Your task to perform on an android device: Is it going to rain today? Image 0: 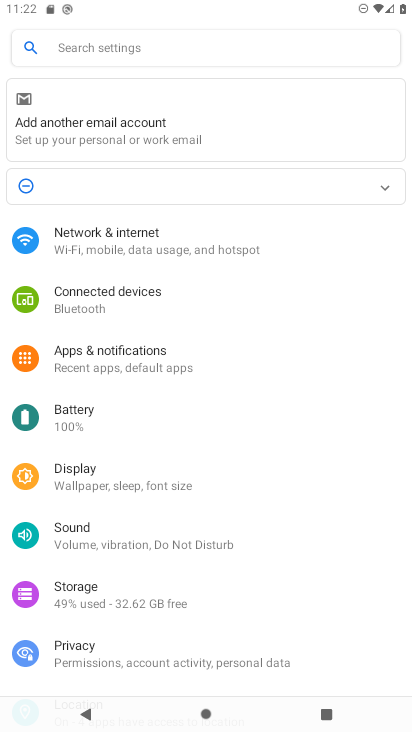
Step 0: press home button
Your task to perform on an android device: Is it going to rain today? Image 1: 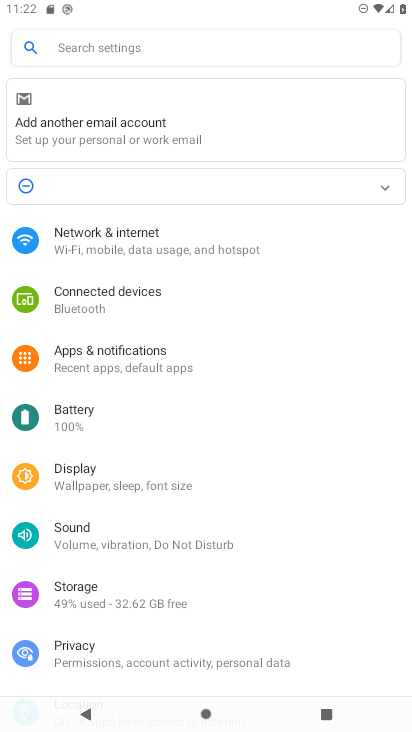
Step 1: press home button
Your task to perform on an android device: Is it going to rain today? Image 2: 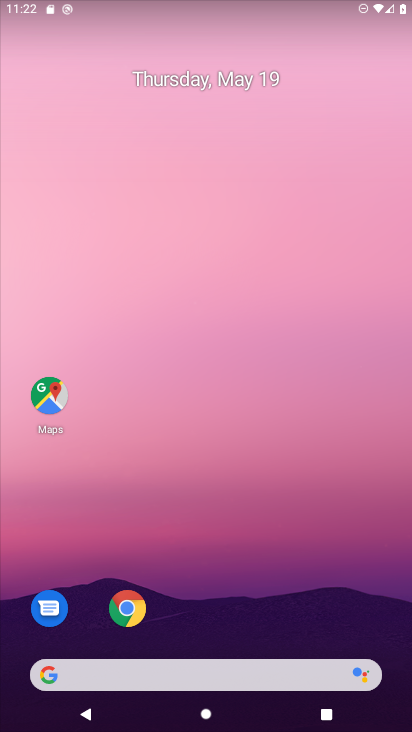
Step 2: drag from (252, 578) to (306, 8)
Your task to perform on an android device: Is it going to rain today? Image 3: 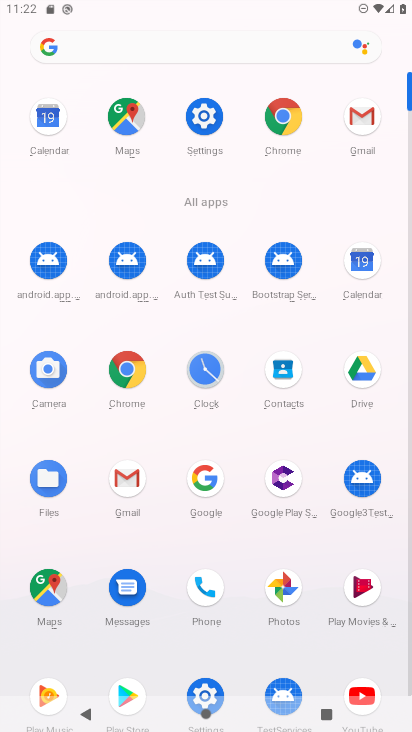
Step 3: click (298, 125)
Your task to perform on an android device: Is it going to rain today? Image 4: 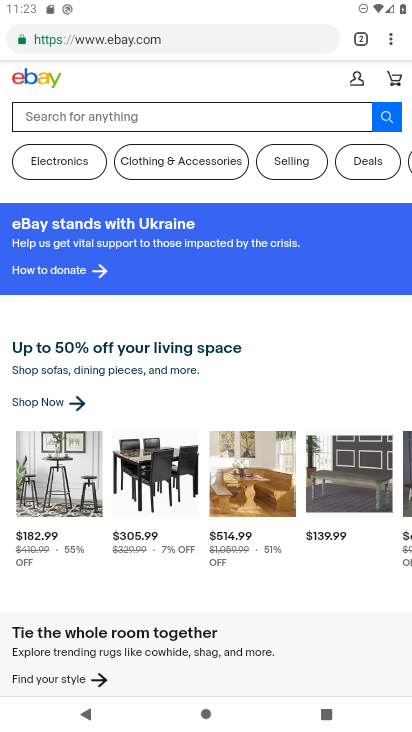
Step 4: click (192, 44)
Your task to perform on an android device: Is it going to rain today? Image 5: 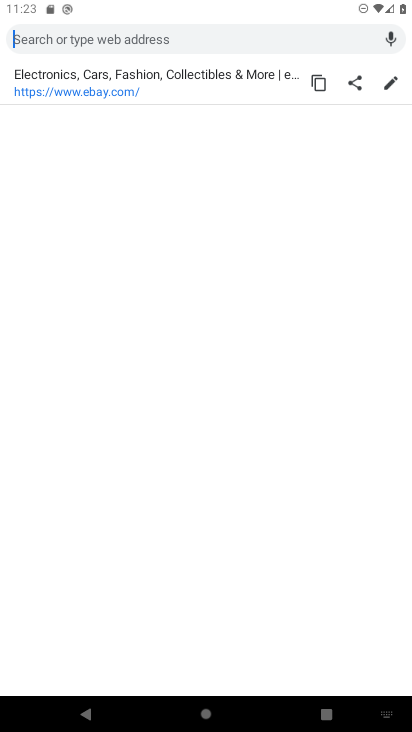
Step 5: type "Is it going to rain today?"
Your task to perform on an android device: Is it going to rain today? Image 6: 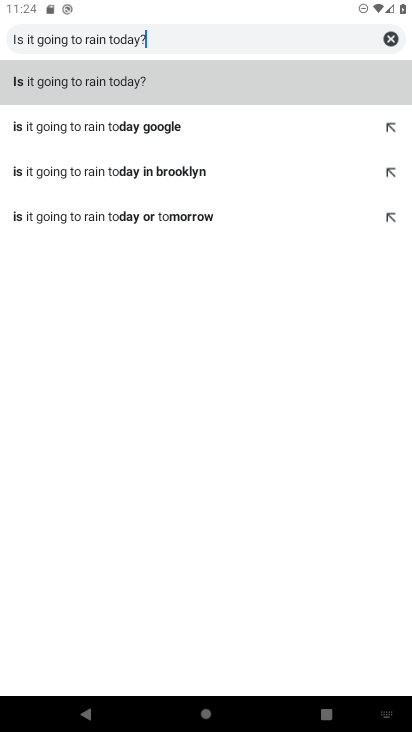
Step 6: click (153, 73)
Your task to perform on an android device: Is it going to rain today? Image 7: 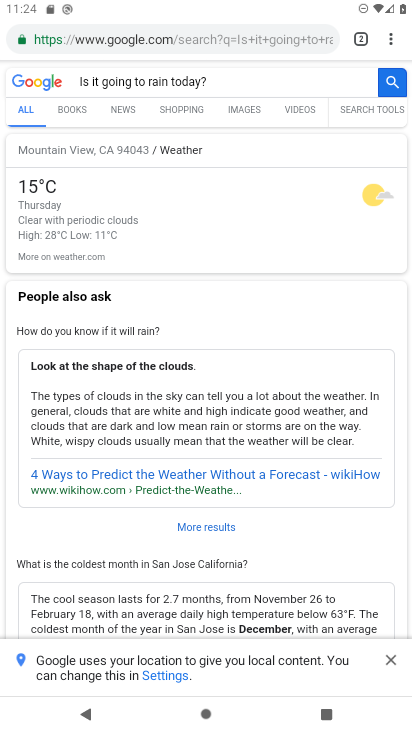
Step 7: task complete